Your task to perform on an android device: Open the stopwatch Image 0: 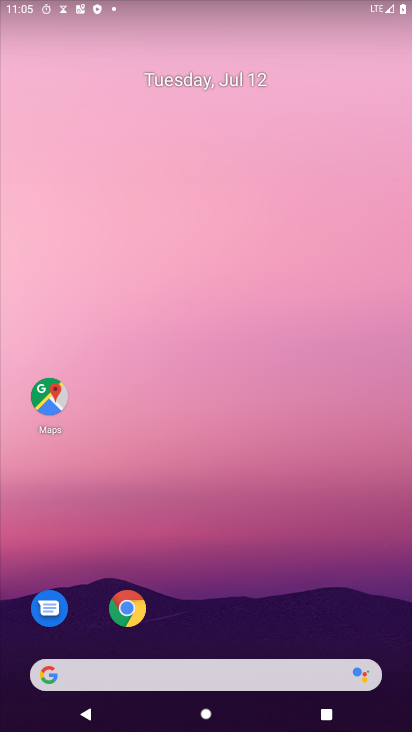
Step 0: drag from (264, 609) to (235, 237)
Your task to perform on an android device: Open the stopwatch Image 1: 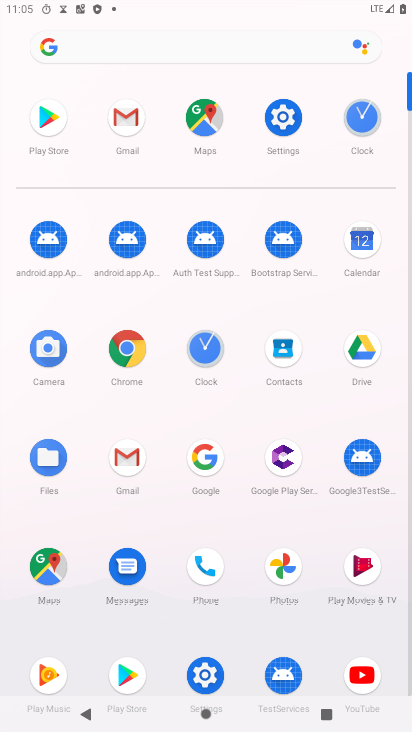
Step 1: click (361, 125)
Your task to perform on an android device: Open the stopwatch Image 2: 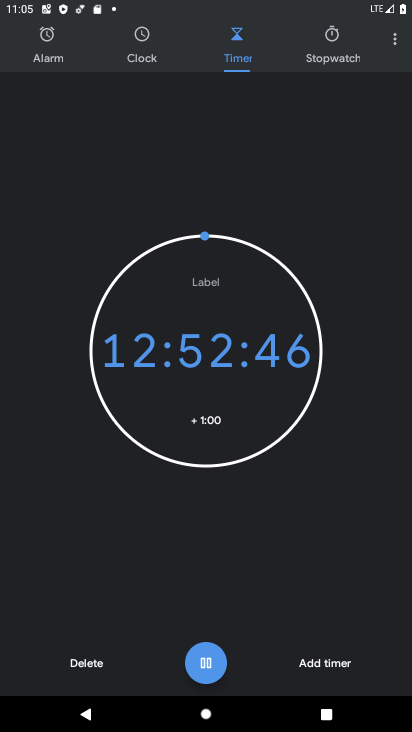
Step 2: click (318, 40)
Your task to perform on an android device: Open the stopwatch Image 3: 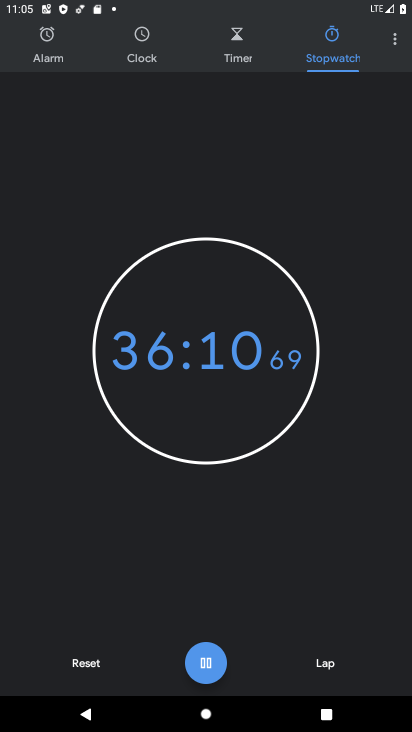
Step 3: task complete